Your task to perform on an android device: Open Youtube and go to "Your channel" Image 0: 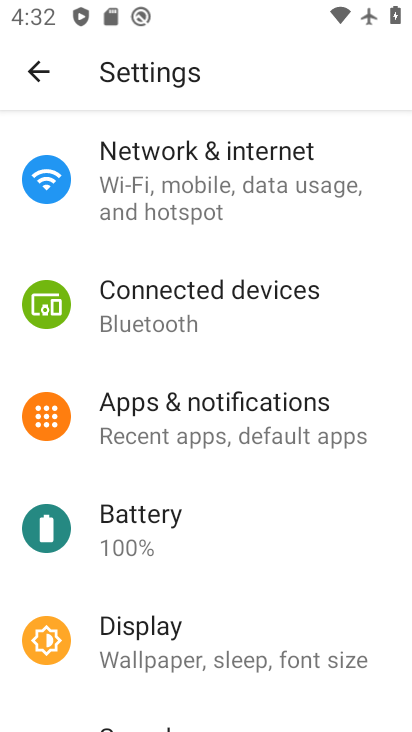
Step 0: press home button
Your task to perform on an android device: Open Youtube and go to "Your channel" Image 1: 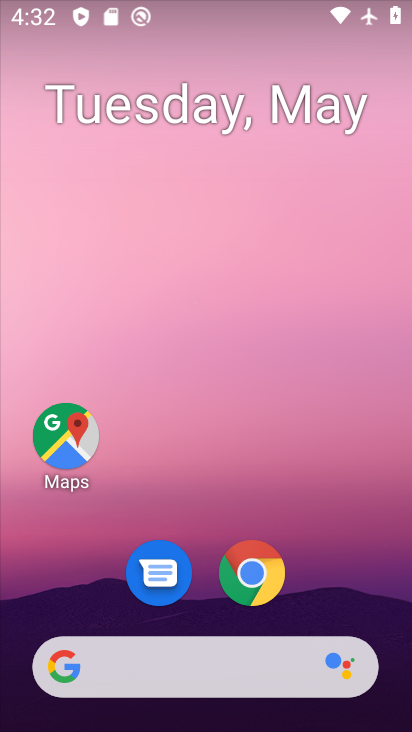
Step 1: drag from (285, 466) to (208, 60)
Your task to perform on an android device: Open Youtube and go to "Your channel" Image 2: 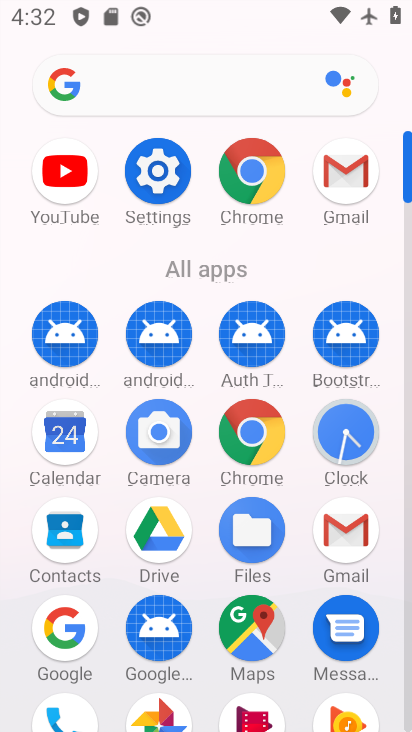
Step 2: click (73, 182)
Your task to perform on an android device: Open Youtube and go to "Your channel" Image 3: 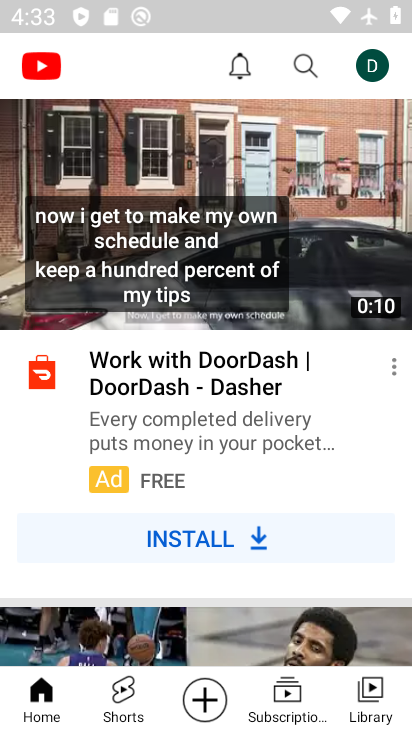
Step 3: click (377, 48)
Your task to perform on an android device: Open Youtube and go to "Your channel" Image 4: 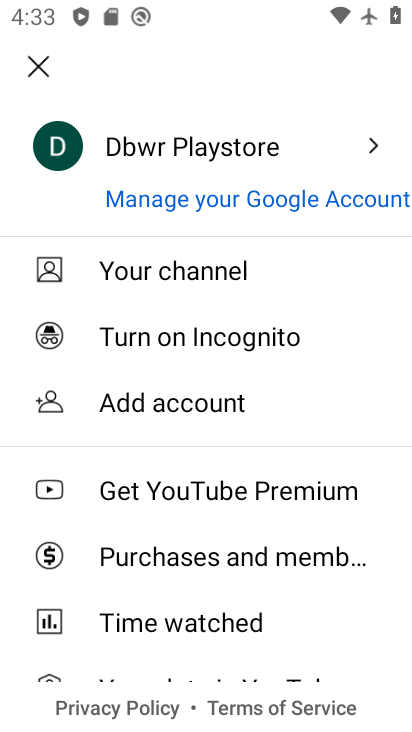
Step 4: click (183, 287)
Your task to perform on an android device: Open Youtube and go to "Your channel" Image 5: 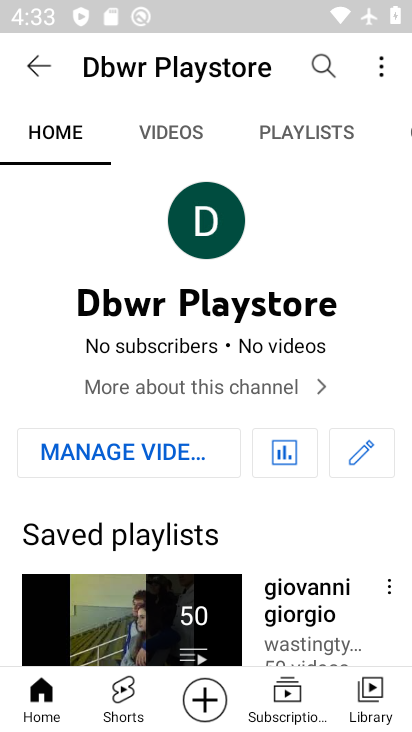
Step 5: task complete